Your task to perform on an android device: Search for seafood restaurants on Google Maps Image 0: 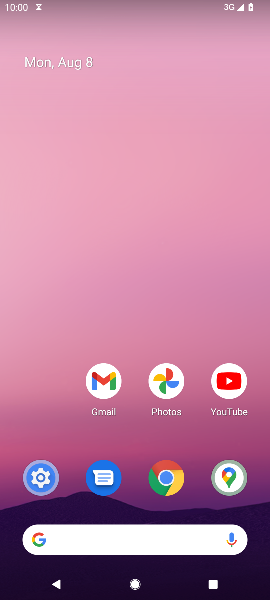
Step 0: press home button
Your task to perform on an android device: Search for seafood restaurants on Google Maps Image 1: 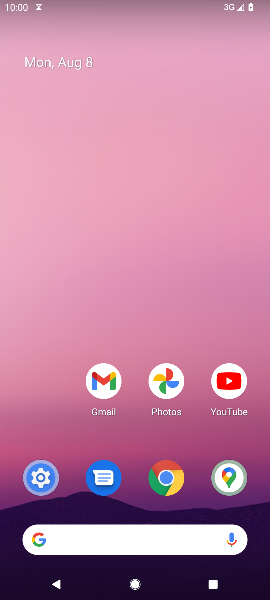
Step 1: drag from (97, 543) to (214, 19)
Your task to perform on an android device: Search for seafood restaurants on Google Maps Image 2: 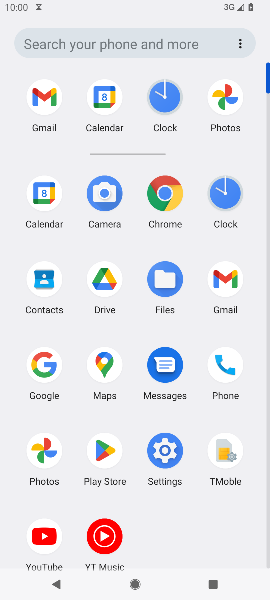
Step 2: click (107, 365)
Your task to perform on an android device: Search for seafood restaurants on Google Maps Image 3: 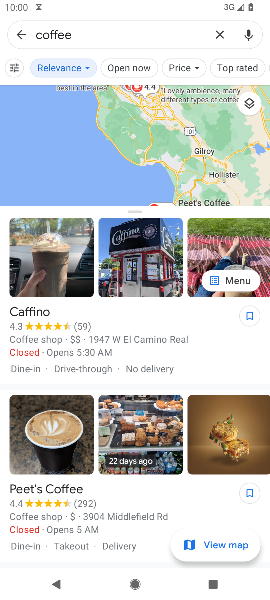
Step 3: click (219, 37)
Your task to perform on an android device: Search for seafood restaurants on Google Maps Image 4: 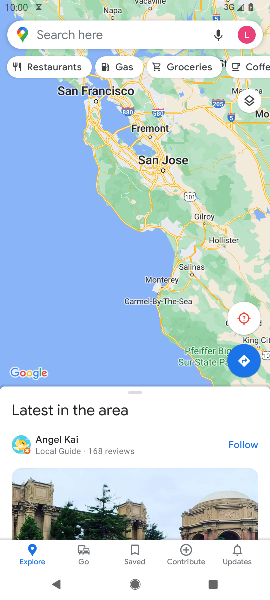
Step 4: click (94, 33)
Your task to perform on an android device: Search for seafood restaurants on Google Maps Image 5: 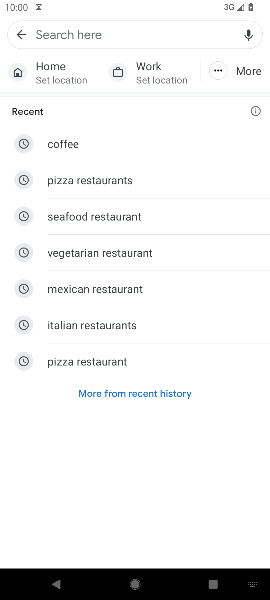
Step 5: click (90, 208)
Your task to perform on an android device: Search for seafood restaurants on Google Maps Image 6: 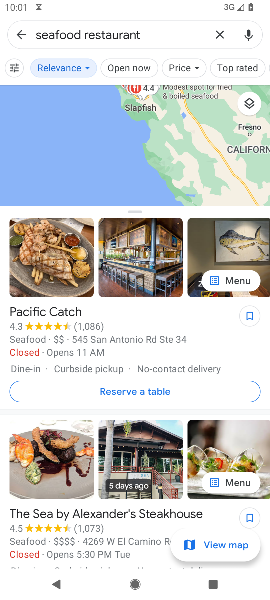
Step 6: task complete